Your task to perform on an android device: all mails in gmail Image 0: 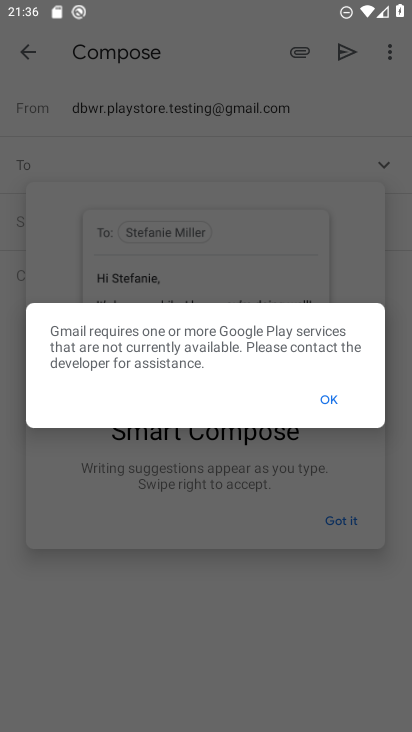
Step 0: press home button
Your task to perform on an android device: all mails in gmail Image 1: 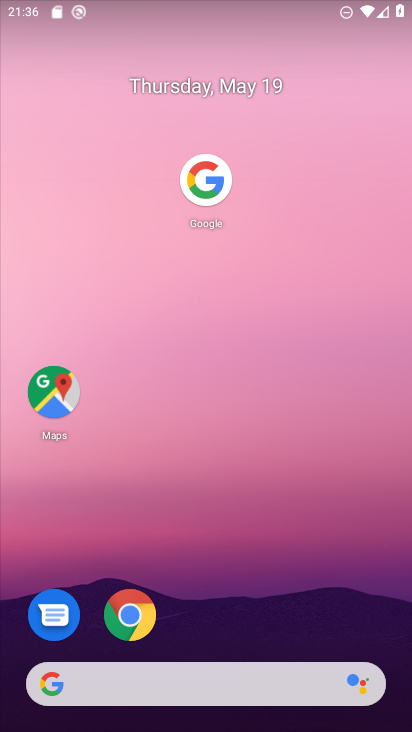
Step 1: drag from (230, 563) to (261, 38)
Your task to perform on an android device: all mails in gmail Image 2: 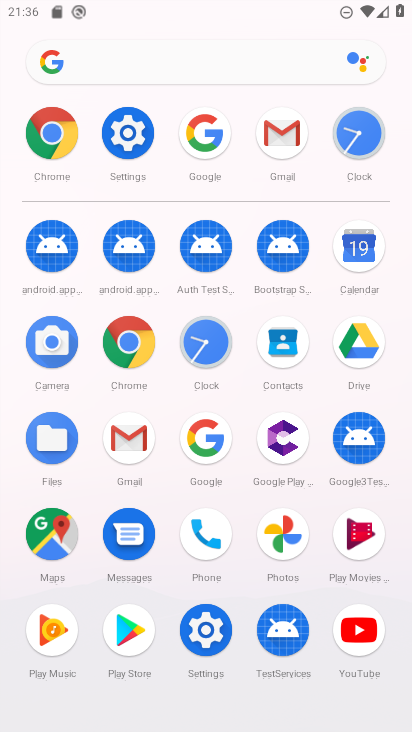
Step 2: click (279, 124)
Your task to perform on an android device: all mails in gmail Image 3: 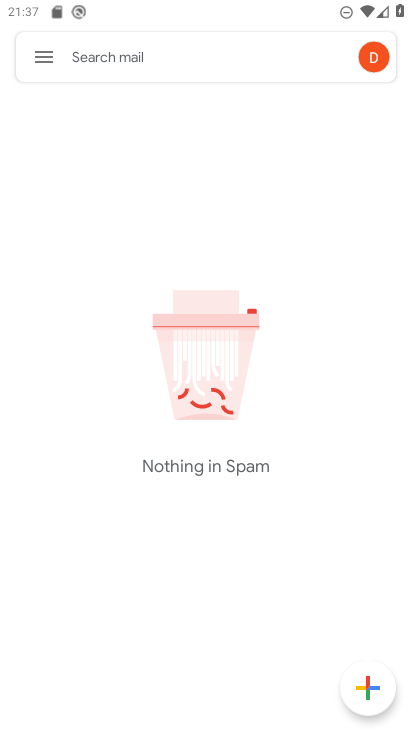
Step 3: click (46, 60)
Your task to perform on an android device: all mails in gmail Image 4: 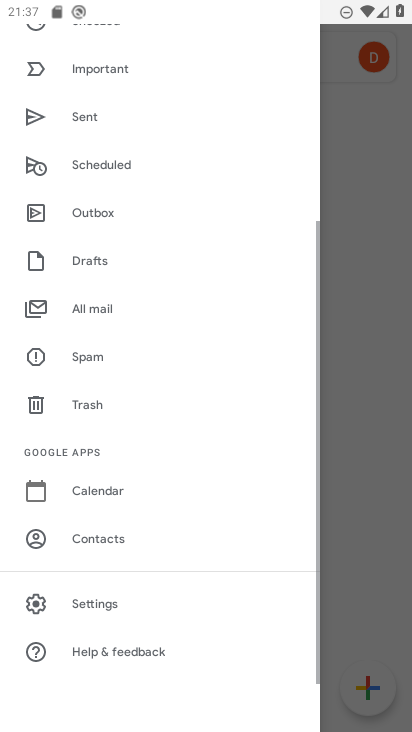
Step 4: click (91, 296)
Your task to perform on an android device: all mails in gmail Image 5: 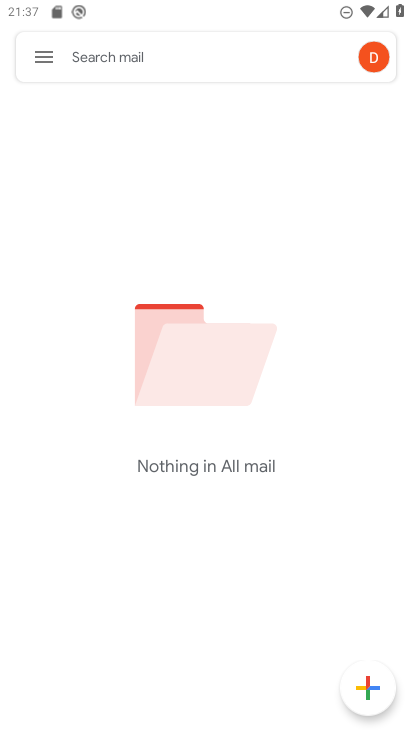
Step 5: task complete